Your task to perform on an android device: turn off wifi Image 0: 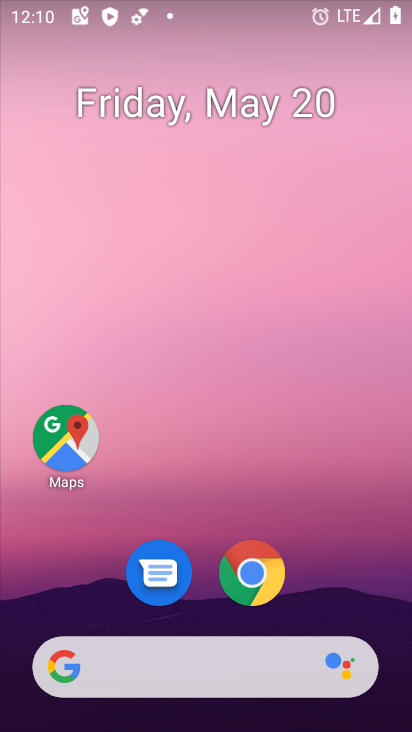
Step 0: drag from (304, 607) to (341, 22)
Your task to perform on an android device: turn off wifi Image 1: 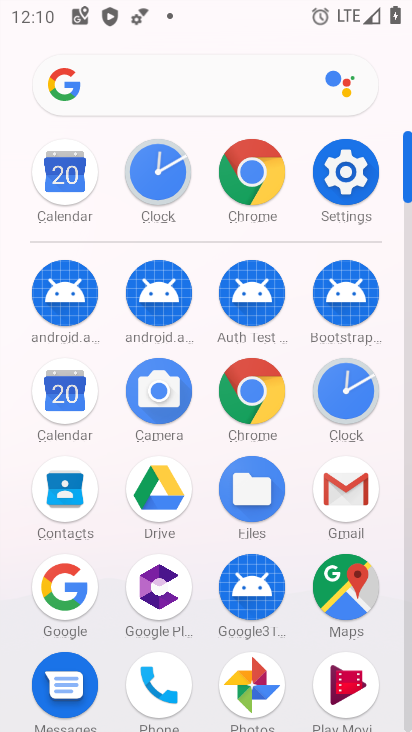
Step 1: click (364, 183)
Your task to perform on an android device: turn off wifi Image 2: 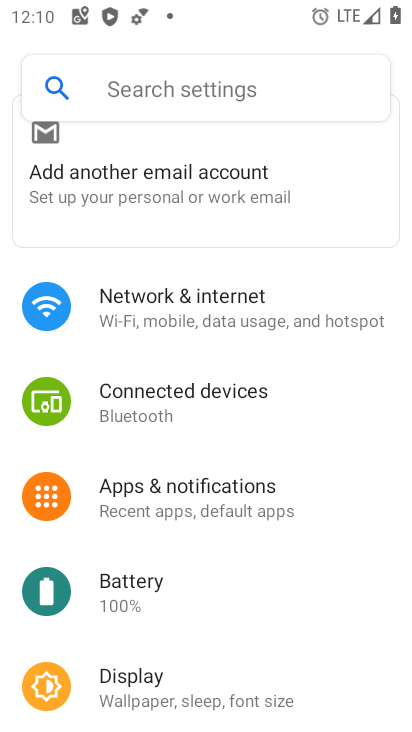
Step 2: click (250, 310)
Your task to perform on an android device: turn off wifi Image 3: 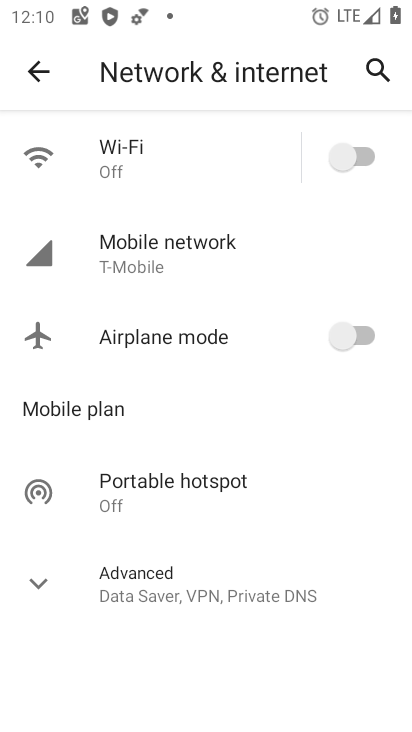
Step 3: task complete